Your task to perform on an android device: Open sound settings Image 0: 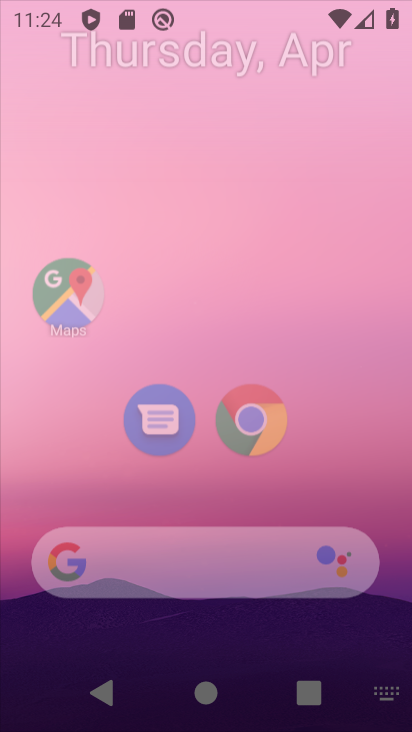
Step 0: click (354, 30)
Your task to perform on an android device: Open sound settings Image 1: 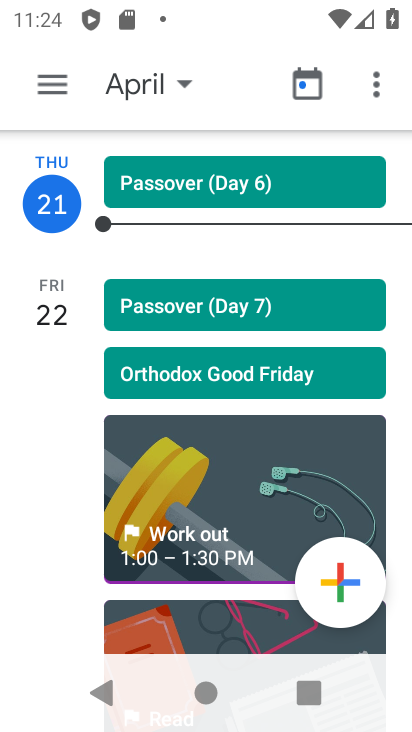
Step 1: press back button
Your task to perform on an android device: Open sound settings Image 2: 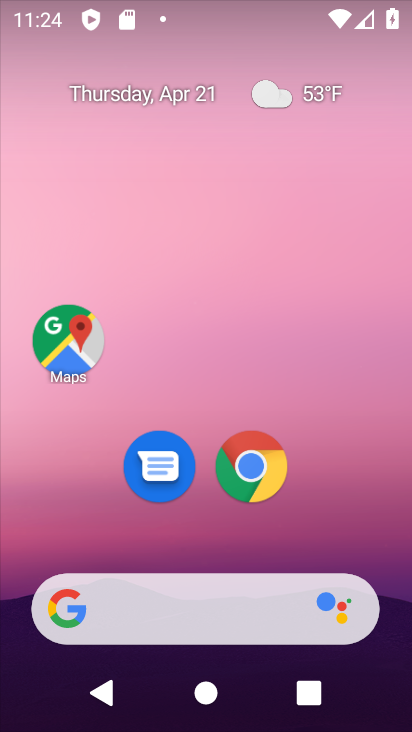
Step 2: drag from (383, 566) to (349, 22)
Your task to perform on an android device: Open sound settings Image 3: 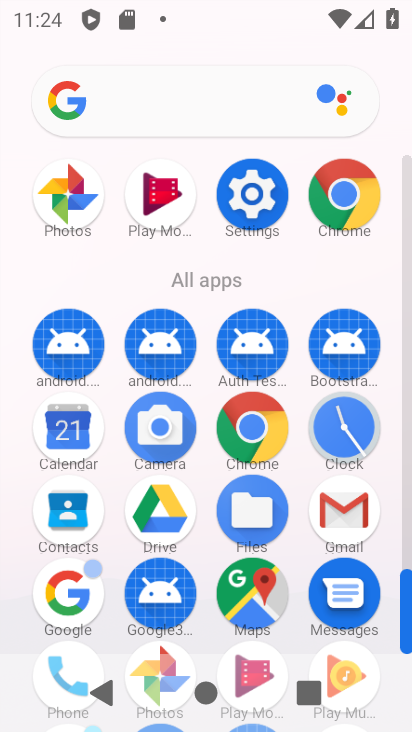
Step 3: click (256, 188)
Your task to perform on an android device: Open sound settings Image 4: 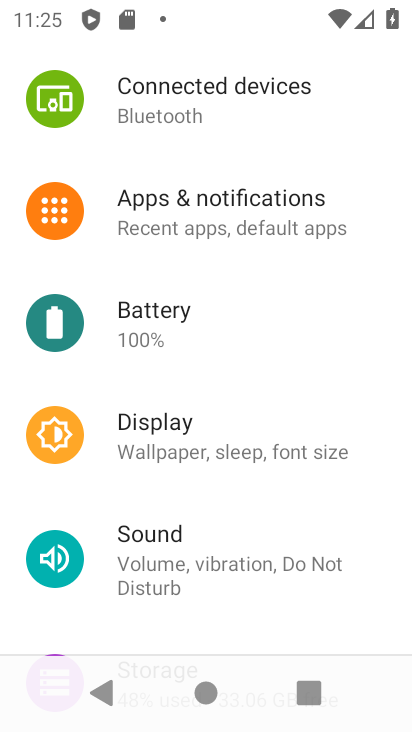
Step 4: click (189, 547)
Your task to perform on an android device: Open sound settings Image 5: 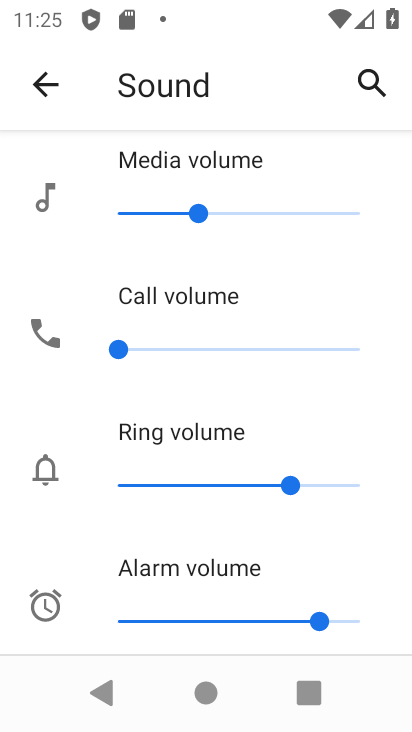
Step 5: drag from (223, 489) to (232, 182)
Your task to perform on an android device: Open sound settings Image 6: 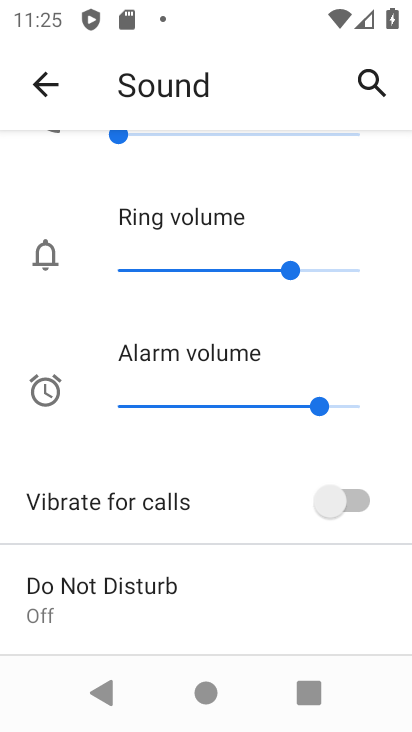
Step 6: drag from (257, 468) to (283, 201)
Your task to perform on an android device: Open sound settings Image 7: 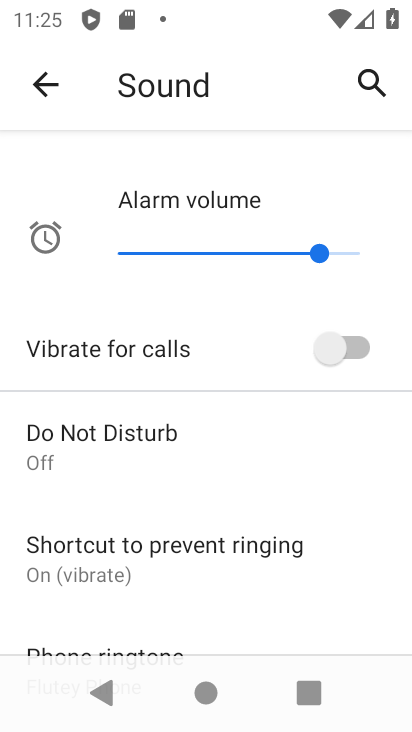
Step 7: drag from (249, 525) to (232, 147)
Your task to perform on an android device: Open sound settings Image 8: 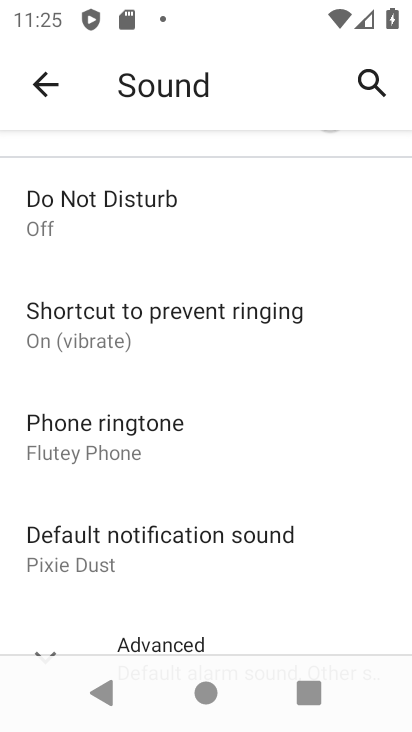
Step 8: drag from (250, 340) to (248, 166)
Your task to perform on an android device: Open sound settings Image 9: 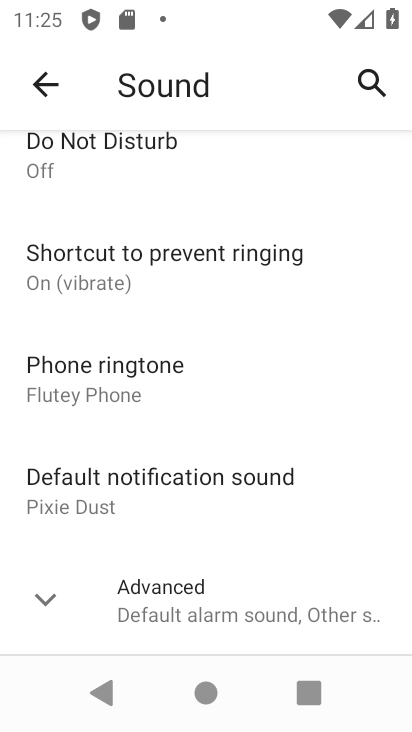
Step 9: click (49, 591)
Your task to perform on an android device: Open sound settings Image 10: 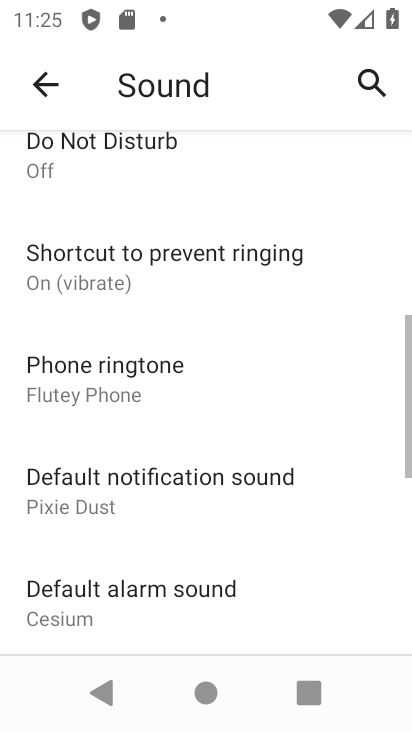
Step 10: task complete